Your task to perform on an android device: Add asus zenbook to the cart on ebay Image 0: 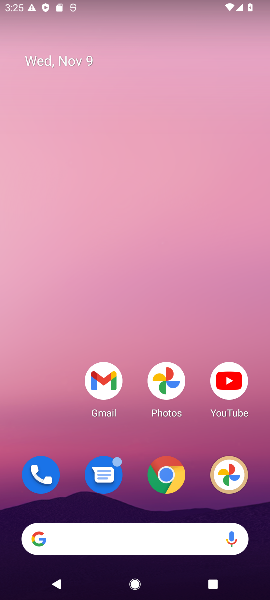
Step 0: drag from (178, 506) to (190, 56)
Your task to perform on an android device: Add asus zenbook to the cart on ebay Image 1: 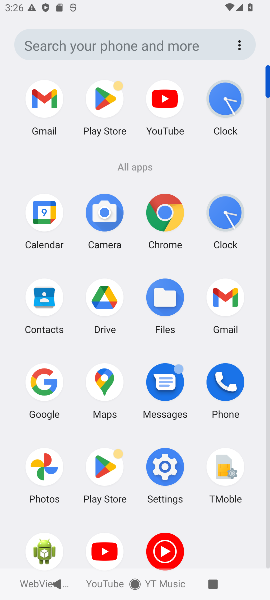
Step 1: click (179, 225)
Your task to perform on an android device: Add asus zenbook to the cart on ebay Image 2: 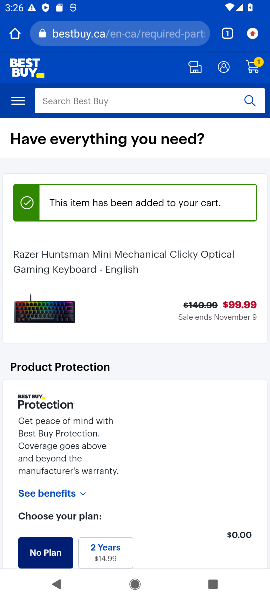
Step 2: click (131, 28)
Your task to perform on an android device: Add asus zenbook to the cart on ebay Image 3: 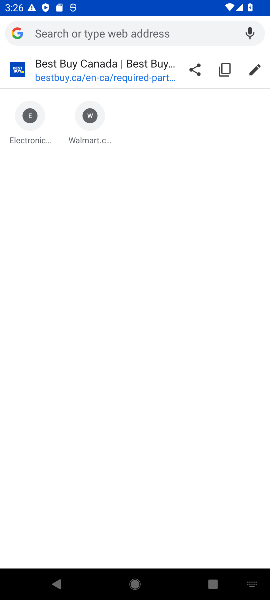
Step 3: type "asus zenbook"
Your task to perform on an android device: Add asus zenbook to the cart on ebay Image 4: 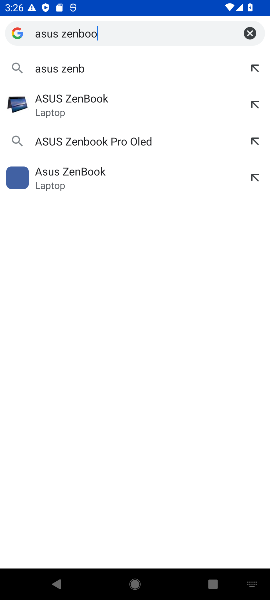
Step 4: press enter
Your task to perform on an android device: Add asus zenbook to the cart on ebay Image 5: 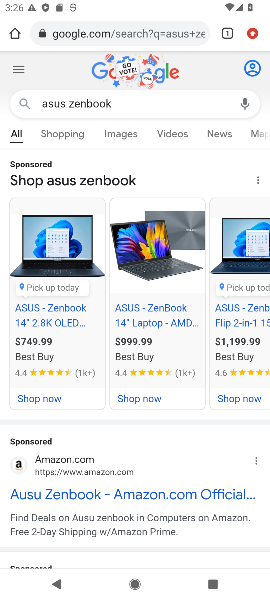
Step 5: click (63, 464)
Your task to perform on an android device: Add asus zenbook to the cart on ebay Image 6: 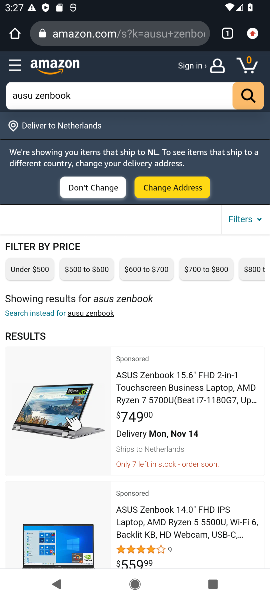
Step 6: click (171, 381)
Your task to perform on an android device: Add asus zenbook to the cart on ebay Image 7: 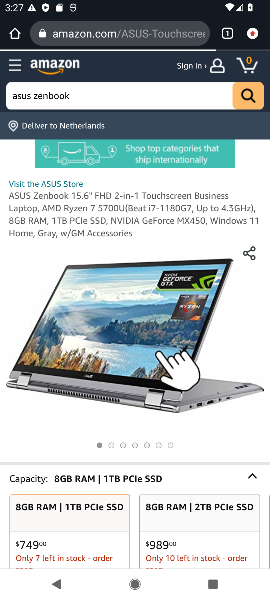
Step 7: drag from (207, 446) to (238, 216)
Your task to perform on an android device: Add asus zenbook to the cart on ebay Image 8: 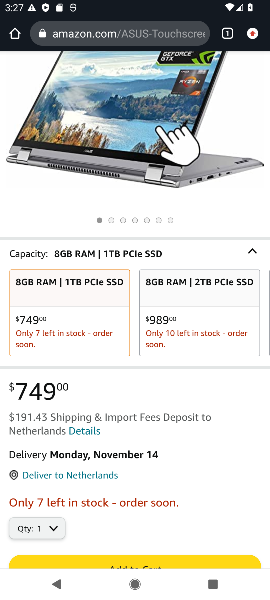
Step 8: drag from (165, 474) to (217, 234)
Your task to perform on an android device: Add asus zenbook to the cart on ebay Image 9: 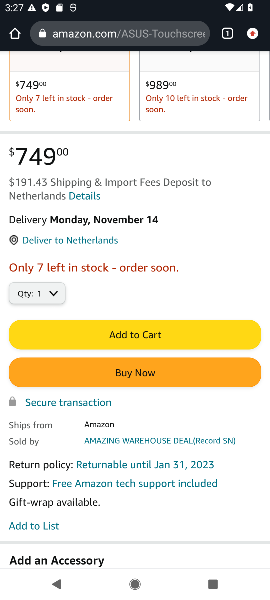
Step 9: click (138, 333)
Your task to perform on an android device: Add asus zenbook to the cart on ebay Image 10: 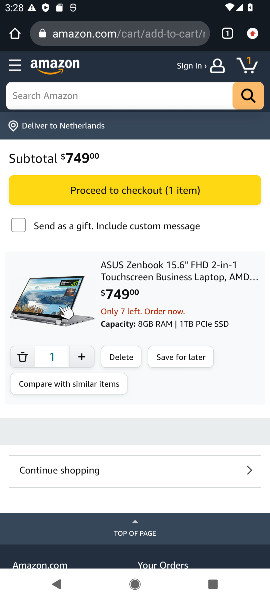
Step 10: task complete